Your task to perform on an android device: Go to internet settings Image 0: 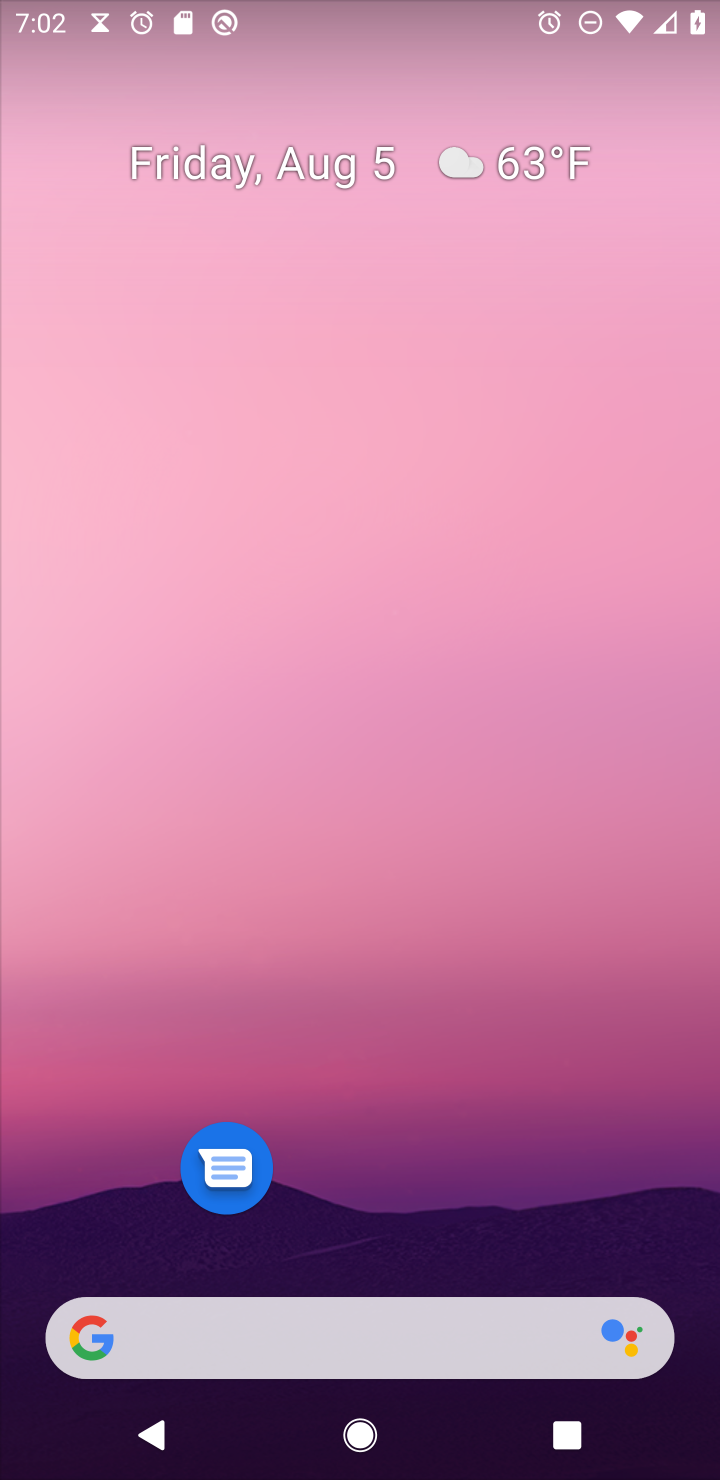
Step 0: drag from (331, 1072) to (400, 271)
Your task to perform on an android device: Go to internet settings Image 1: 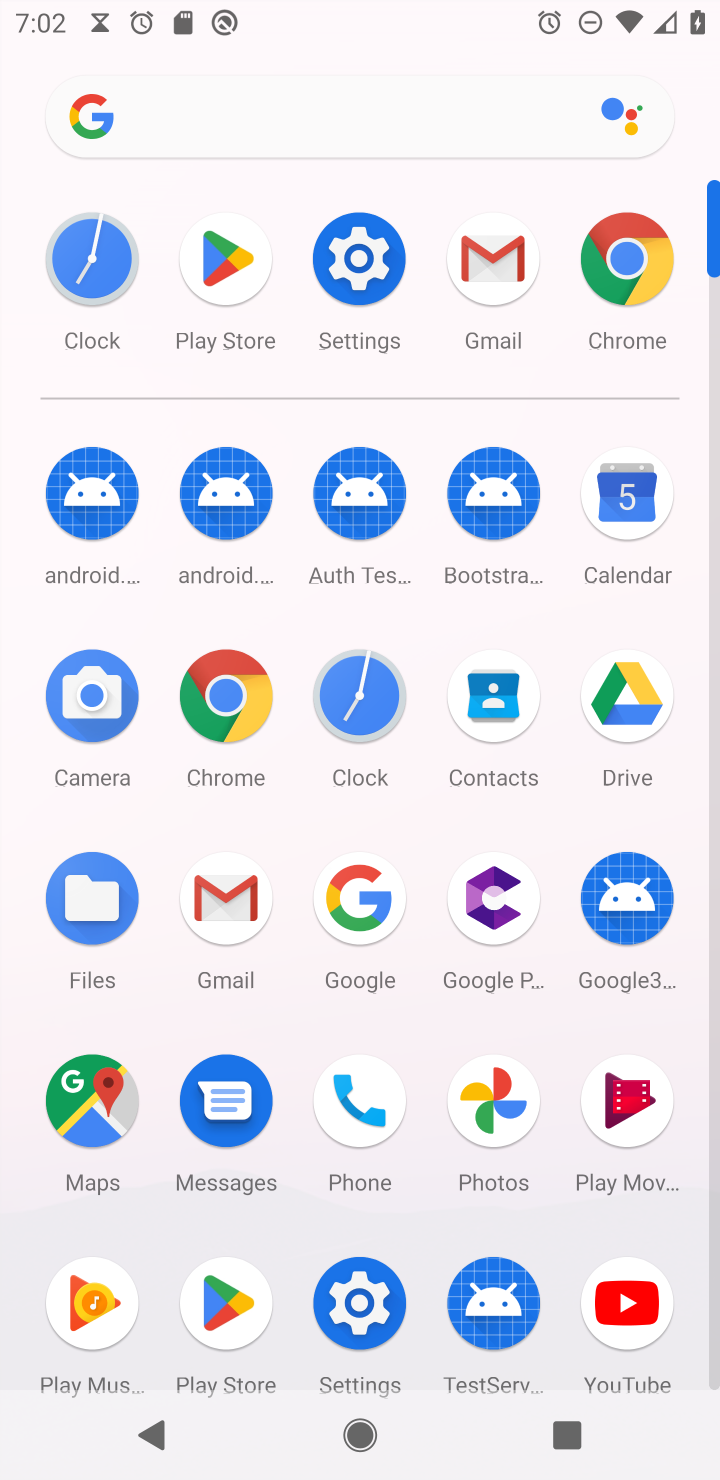
Step 1: click (354, 271)
Your task to perform on an android device: Go to internet settings Image 2: 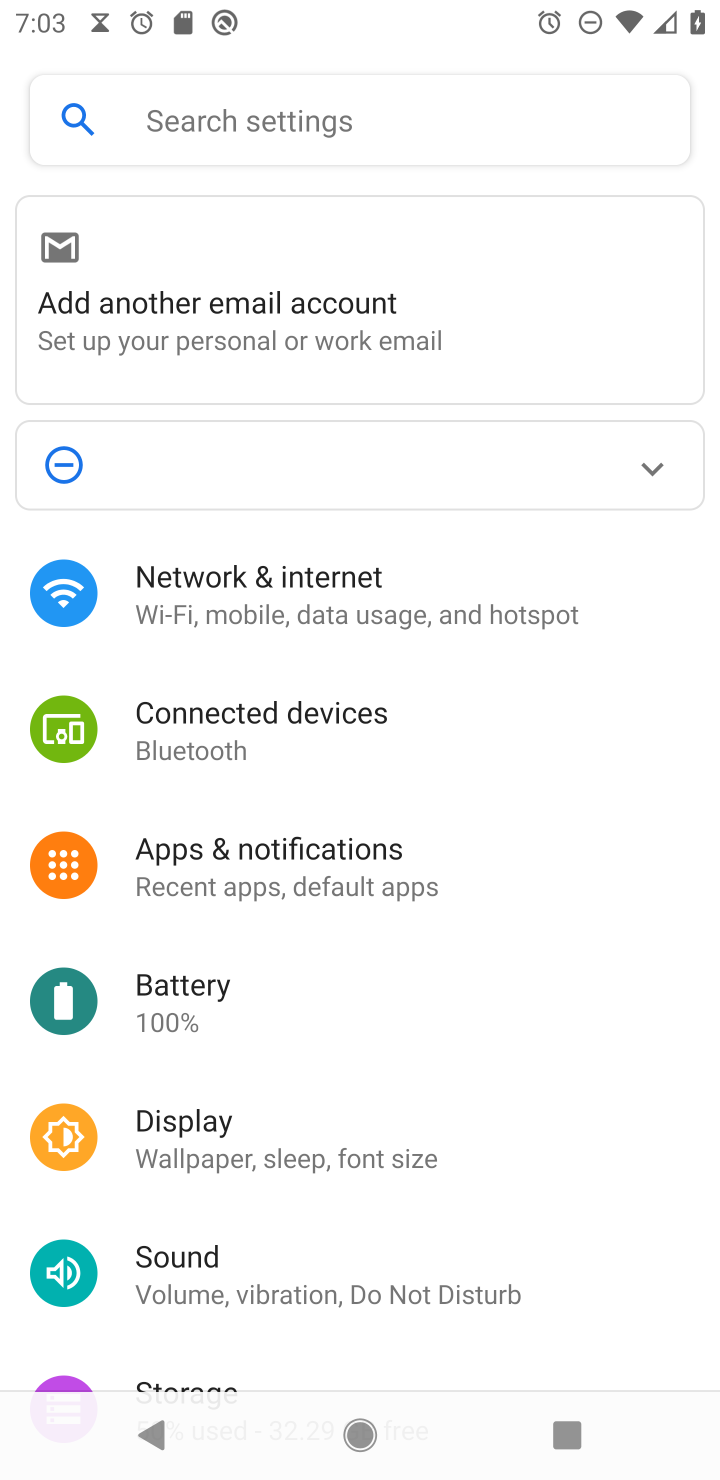
Step 2: click (228, 624)
Your task to perform on an android device: Go to internet settings Image 3: 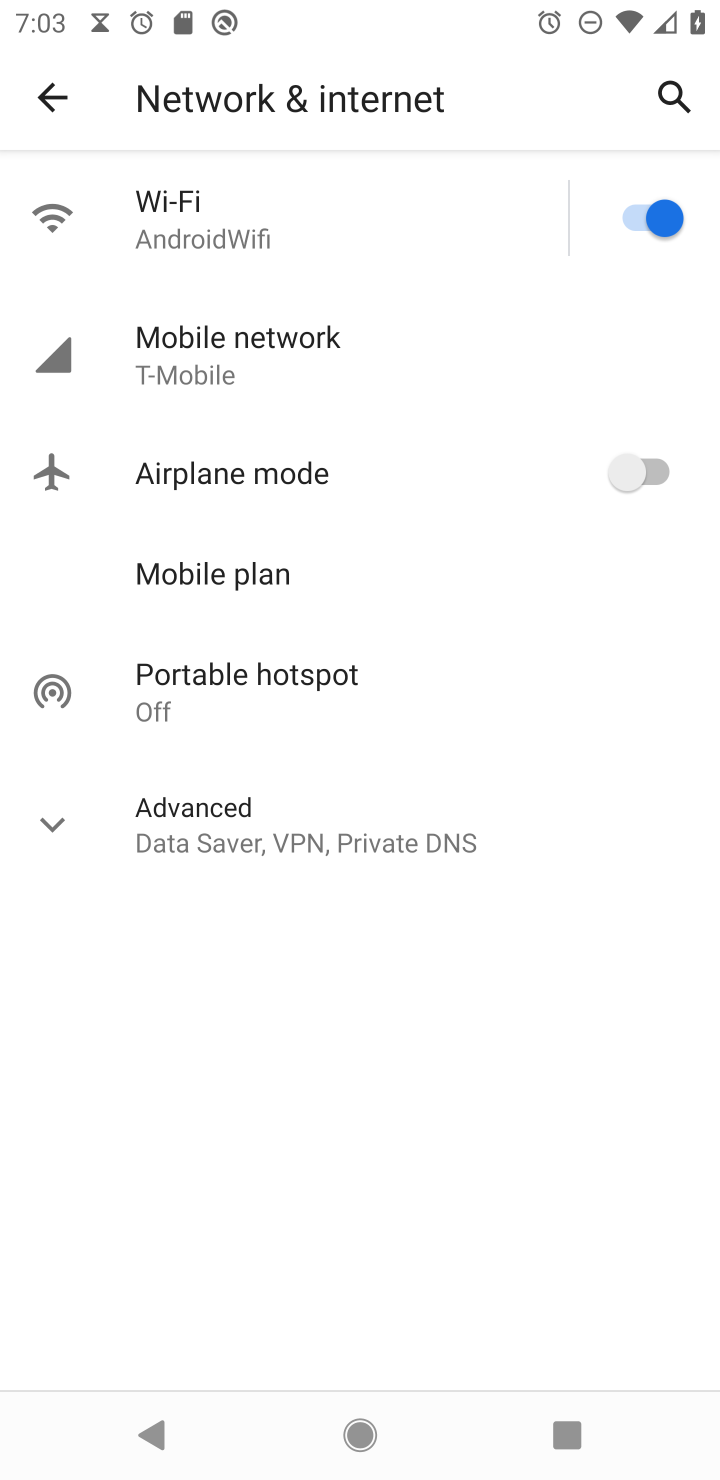
Step 3: task complete